Your task to perform on an android device: turn on the 12-hour format for clock Image 0: 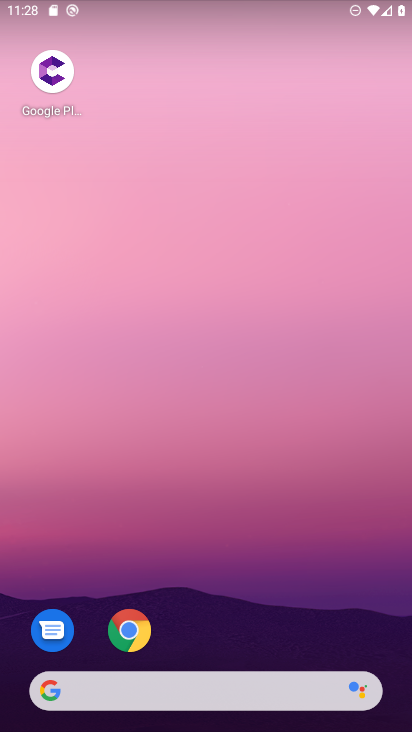
Step 0: drag from (297, 46) to (383, 425)
Your task to perform on an android device: turn on the 12-hour format for clock Image 1: 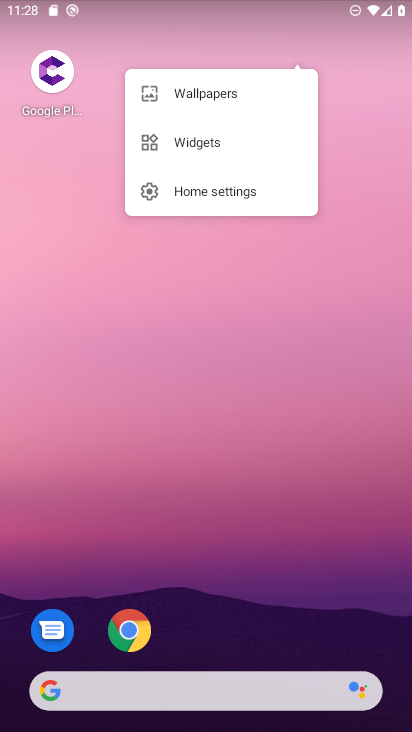
Step 1: click (256, 525)
Your task to perform on an android device: turn on the 12-hour format for clock Image 2: 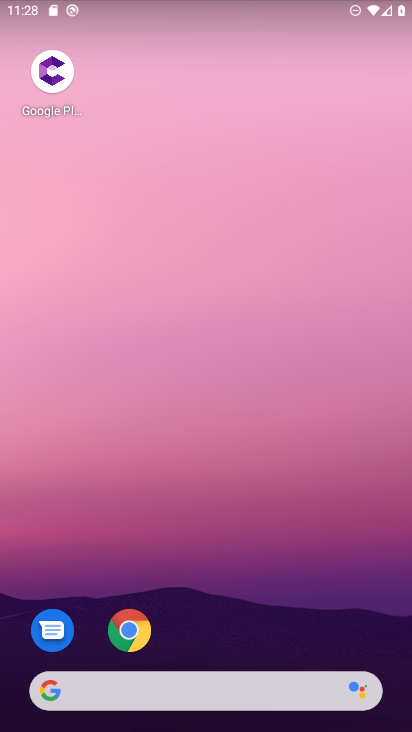
Step 2: drag from (339, 386) to (2, 372)
Your task to perform on an android device: turn on the 12-hour format for clock Image 3: 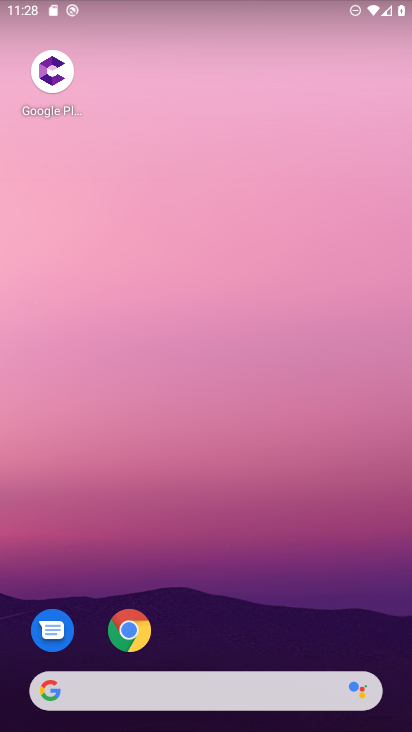
Step 3: drag from (278, 650) to (249, 5)
Your task to perform on an android device: turn on the 12-hour format for clock Image 4: 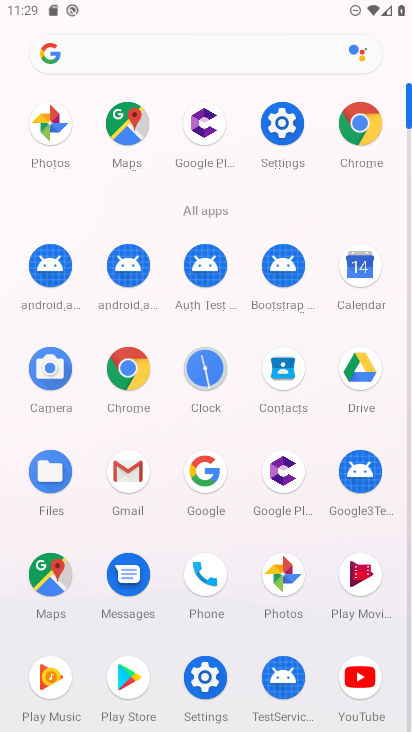
Step 4: click (215, 374)
Your task to perform on an android device: turn on the 12-hour format for clock Image 5: 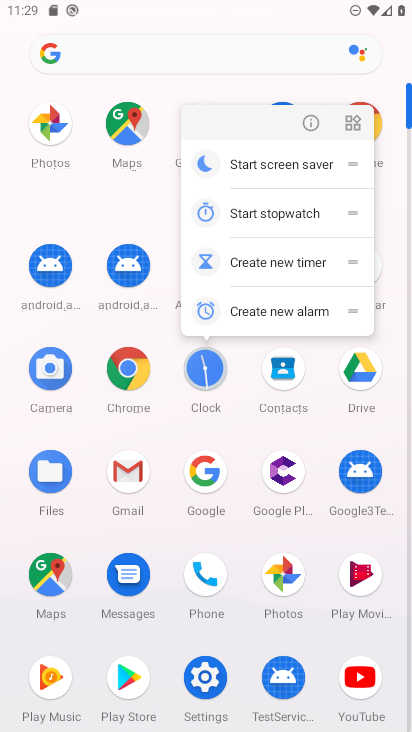
Step 5: click (211, 381)
Your task to perform on an android device: turn on the 12-hour format for clock Image 6: 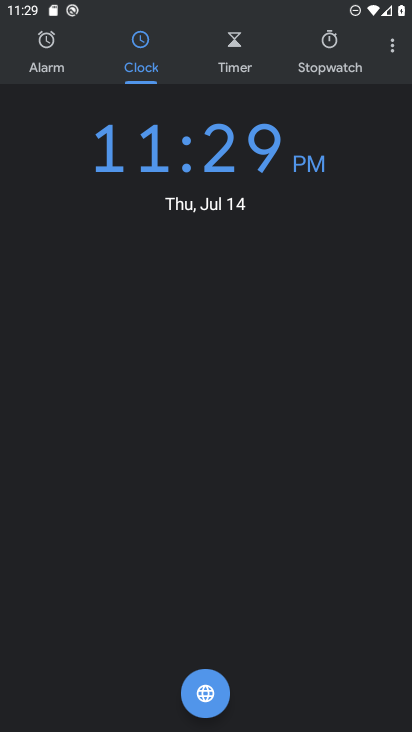
Step 6: click (400, 59)
Your task to perform on an android device: turn on the 12-hour format for clock Image 7: 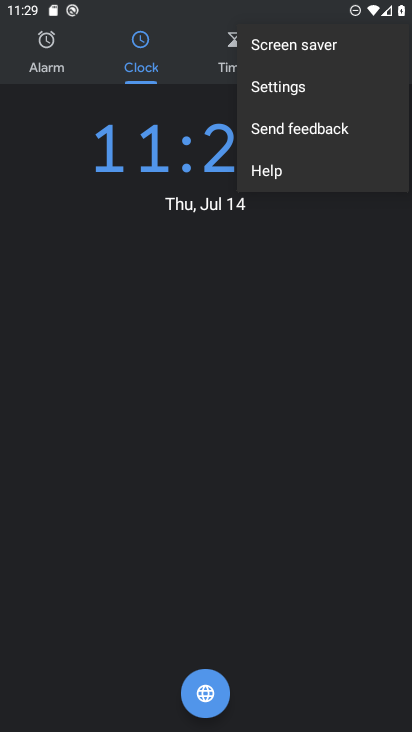
Step 7: click (284, 98)
Your task to perform on an android device: turn on the 12-hour format for clock Image 8: 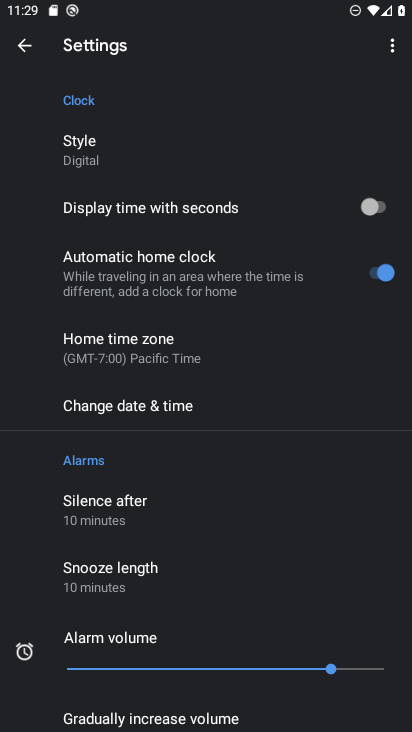
Step 8: click (191, 398)
Your task to perform on an android device: turn on the 12-hour format for clock Image 9: 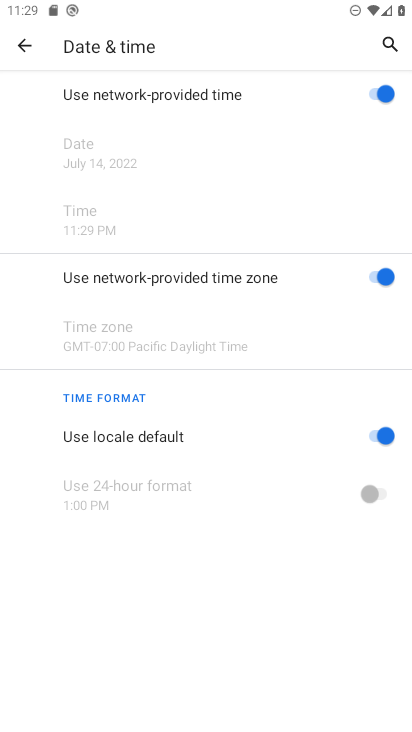
Step 9: task complete